Your task to perform on an android device: refresh tabs in the chrome app Image 0: 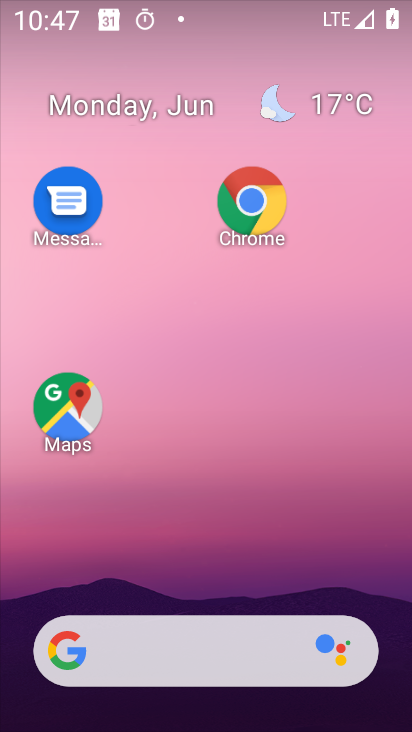
Step 0: click (274, 218)
Your task to perform on an android device: refresh tabs in the chrome app Image 1: 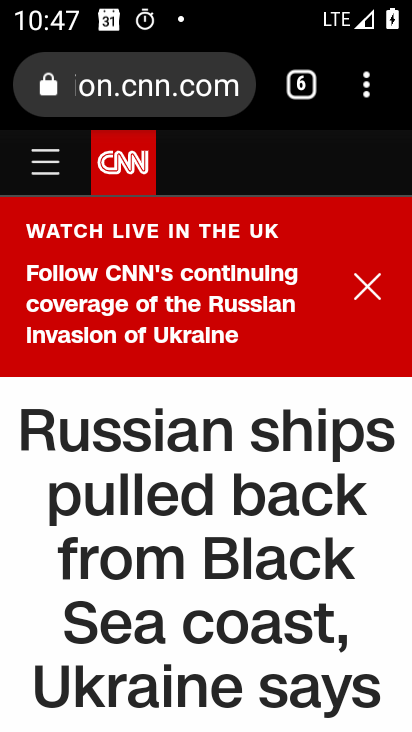
Step 1: click (375, 78)
Your task to perform on an android device: refresh tabs in the chrome app Image 2: 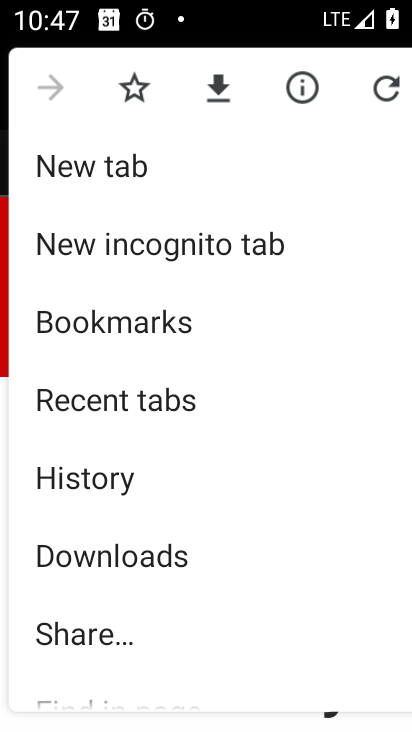
Step 2: click (390, 89)
Your task to perform on an android device: refresh tabs in the chrome app Image 3: 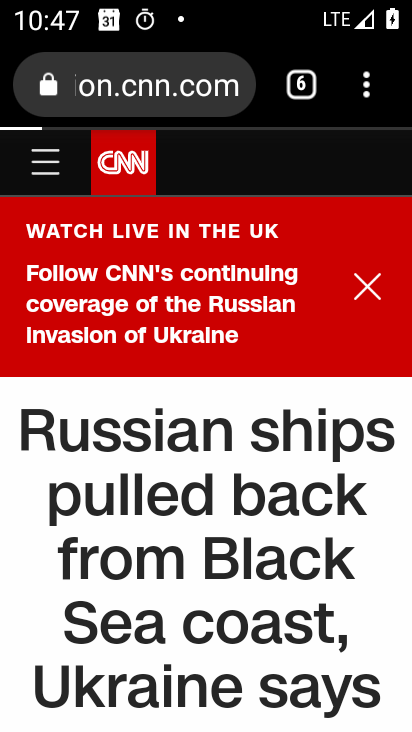
Step 3: task complete